Your task to perform on an android device: empty trash in the gmail app Image 0: 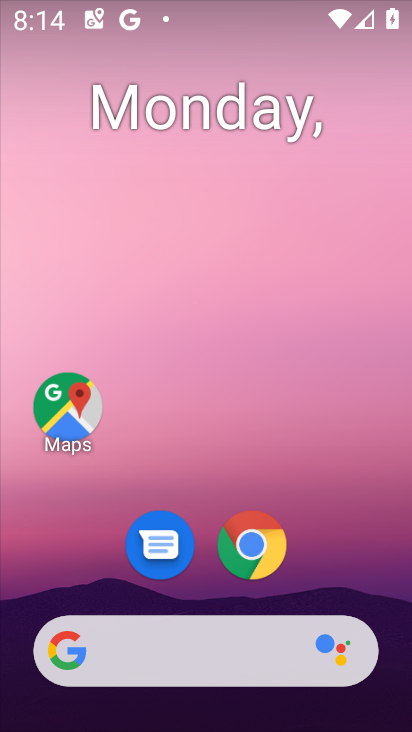
Step 0: press home button
Your task to perform on an android device: empty trash in the gmail app Image 1: 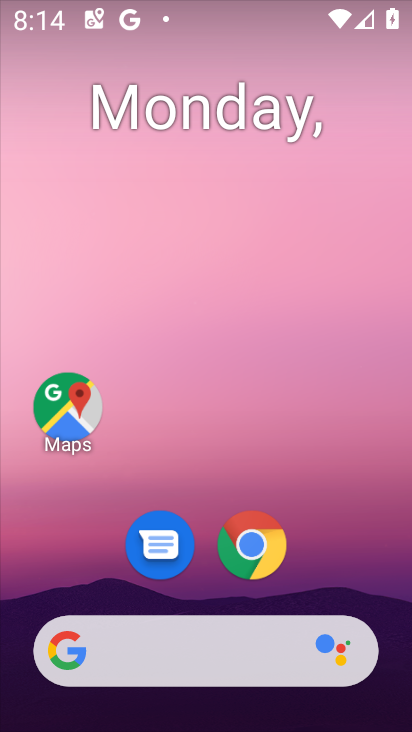
Step 1: drag from (157, 669) to (308, 132)
Your task to perform on an android device: empty trash in the gmail app Image 2: 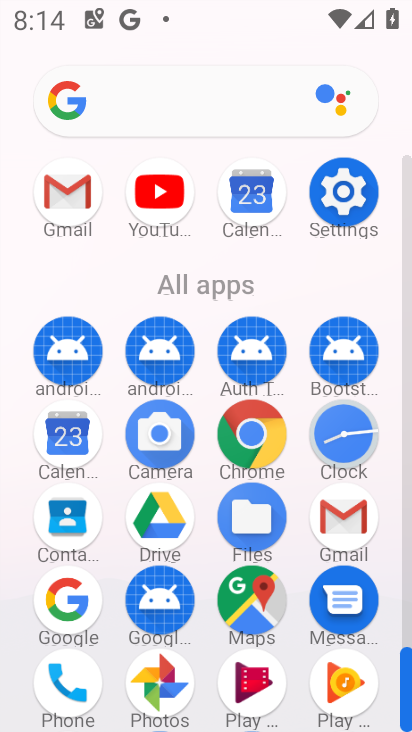
Step 2: click (76, 208)
Your task to perform on an android device: empty trash in the gmail app Image 3: 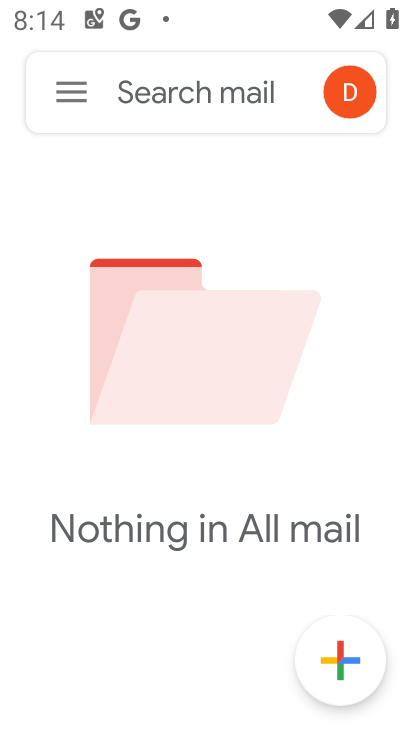
Step 3: click (78, 90)
Your task to perform on an android device: empty trash in the gmail app Image 4: 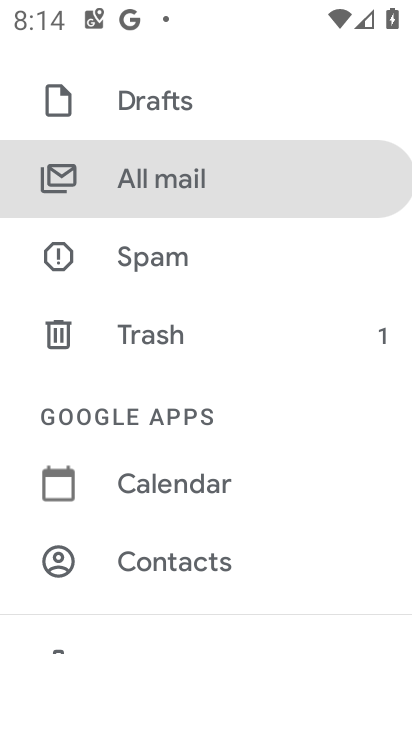
Step 4: click (160, 336)
Your task to perform on an android device: empty trash in the gmail app Image 5: 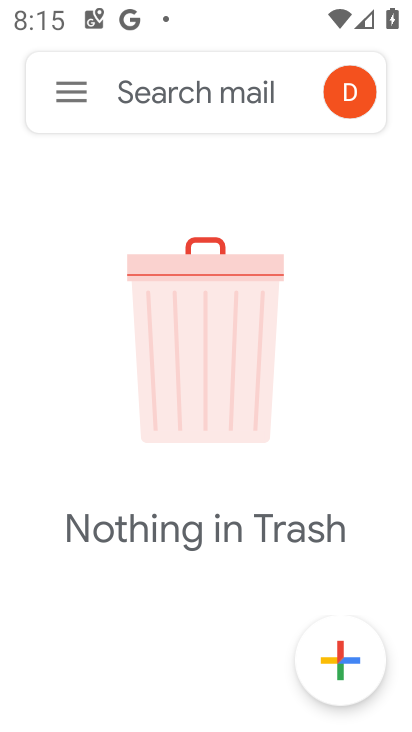
Step 5: task complete